Your task to perform on an android device: turn off notifications in google photos Image 0: 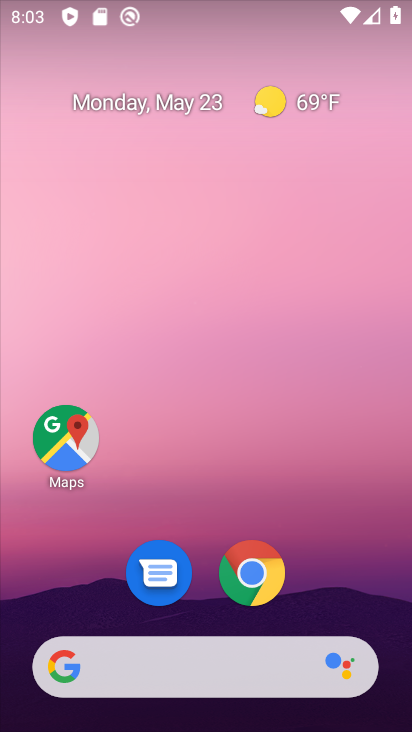
Step 0: drag from (318, 590) to (370, 121)
Your task to perform on an android device: turn off notifications in google photos Image 1: 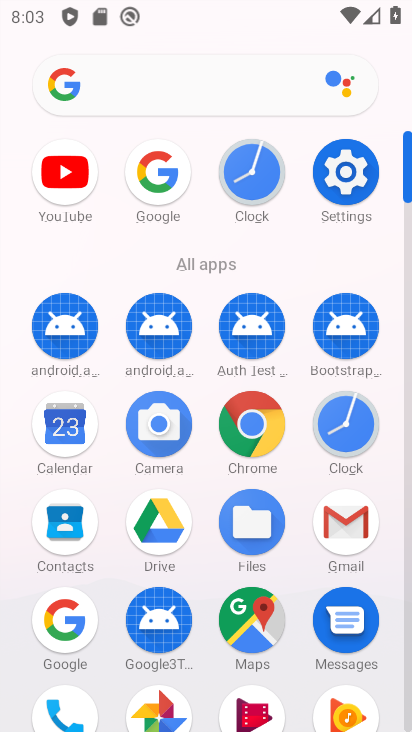
Step 1: click (159, 710)
Your task to perform on an android device: turn off notifications in google photos Image 2: 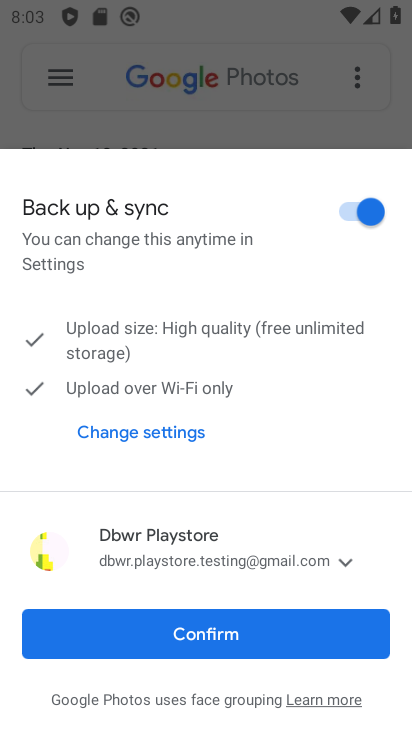
Step 2: click (64, 78)
Your task to perform on an android device: turn off notifications in google photos Image 3: 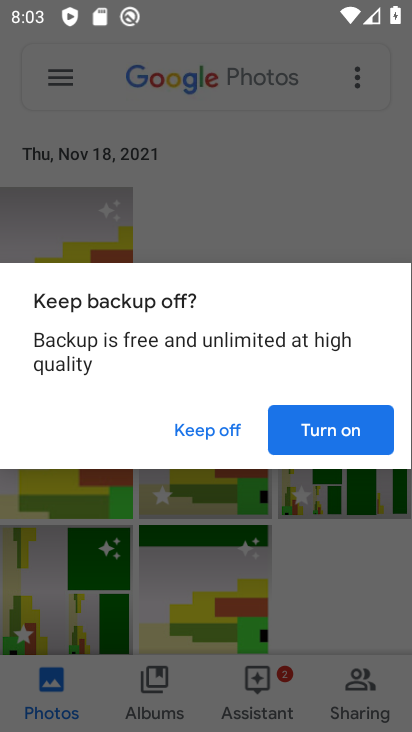
Step 3: click (319, 438)
Your task to perform on an android device: turn off notifications in google photos Image 4: 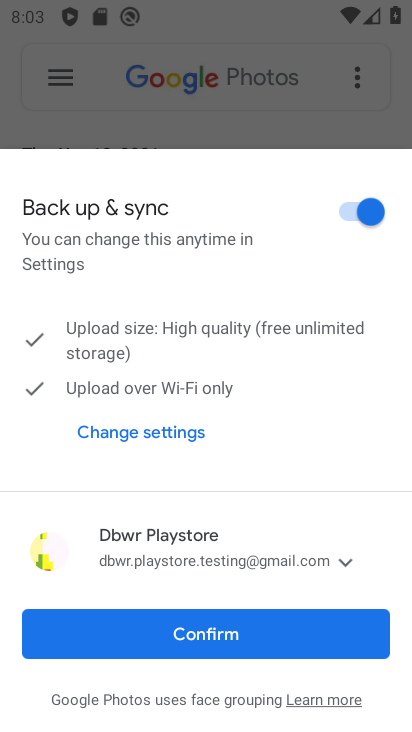
Step 4: click (232, 631)
Your task to perform on an android device: turn off notifications in google photos Image 5: 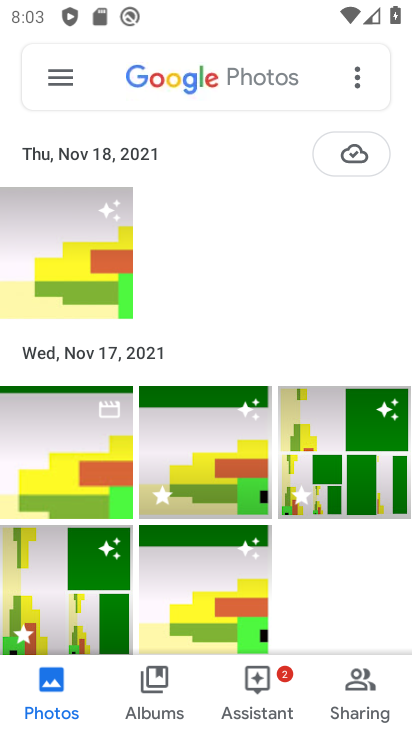
Step 5: click (66, 89)
Your task to perform on an android device: turn off notifications in google photos Image 6: 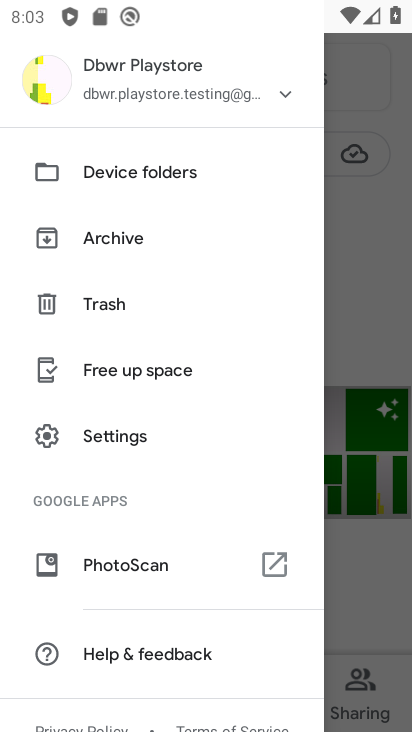
Step 6: drag from (169, 614) to (171, 514)
Your task to perform on an android device: turn off notifications in google photos Image 7: 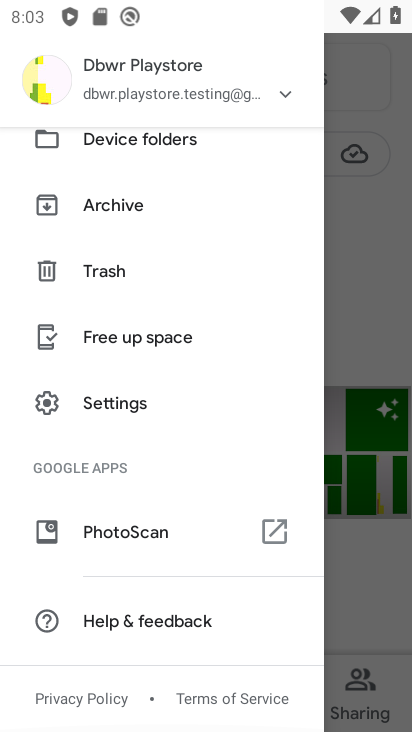
Step 7: click (113, 391)
Your task to perform on an android device: turn off notifications in google photos Image 8: 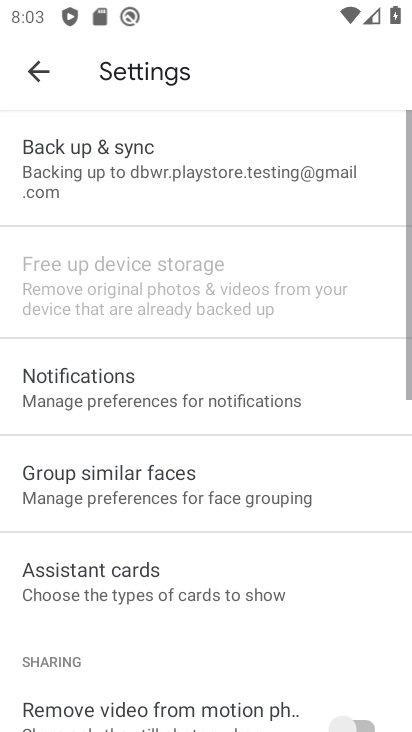
Step 8: click (104, 169)
Your task to perform on an android device: turn off notifications in google photos Image 9: 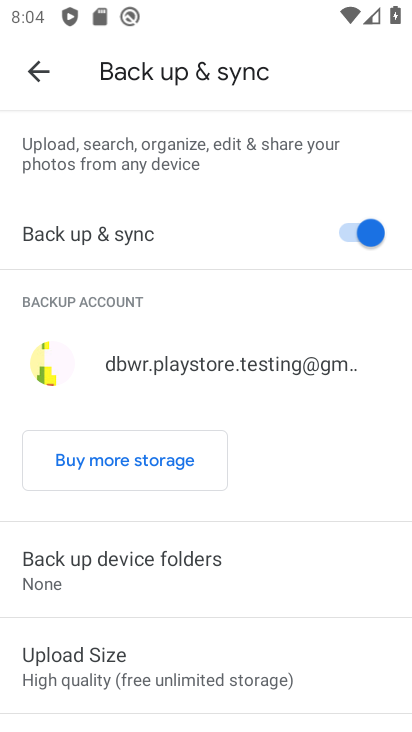
Step 9: press back button
Your task to perform on an android device: turn off notifications in google photos Image 10: 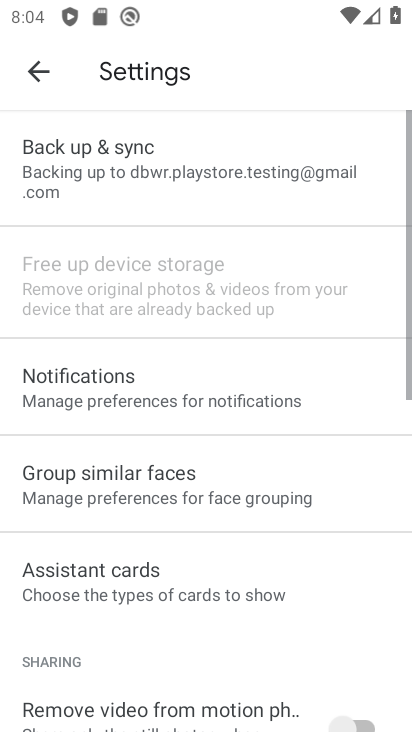
Step 10: click (121, 422)
Your task to perform on an android device: turn off notifications in google photos Image 11: 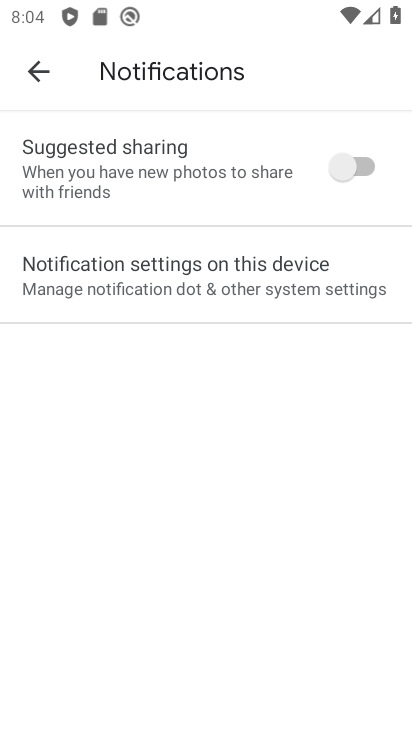
Step 11: click (156, 296)
Your task to perform on an android device: turn off notifications in google photos Image 12: 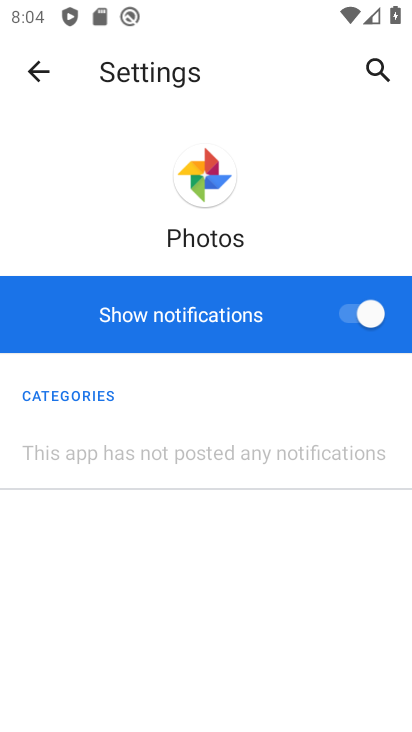
Step 12: click (376, 313)
Your task to perform on an android device: turn off notifications in google photos Image 13: 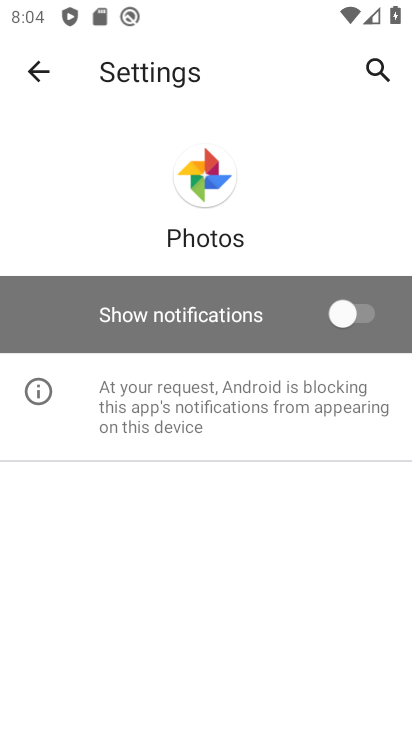
Step 13: task complete